Your task to perform on an android device: Open the web browser Image 0: 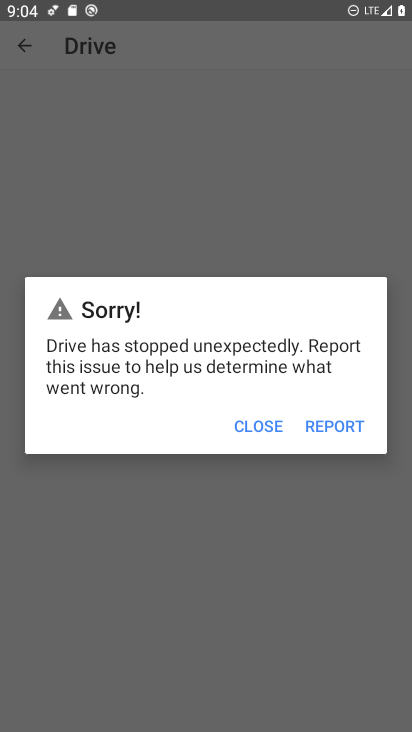
Step 0: press home button
Your task to perform on an android device: Open the web browser Image 1: 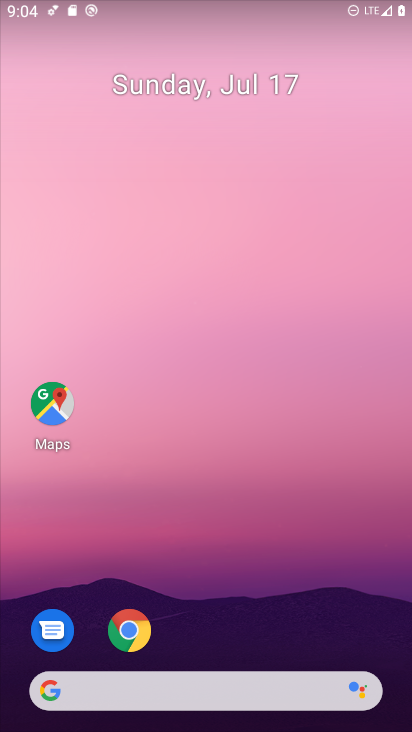
Step 1: click (124, 641)
Your task to perform on an android device: Open the web browser Image 2: 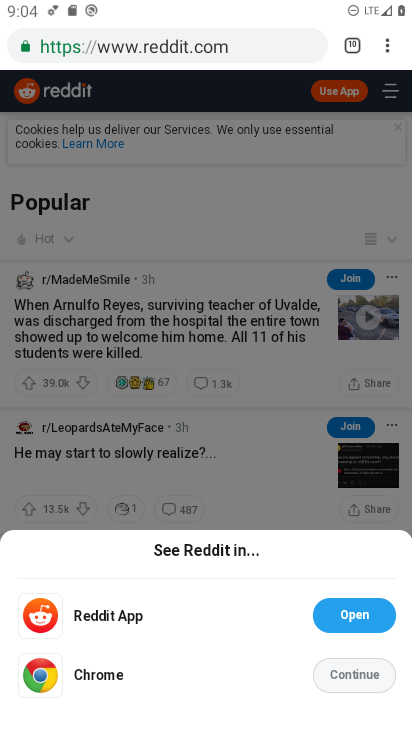
Step 2: task complete